Your task to perform on an android device: Open Amazon Image 0: 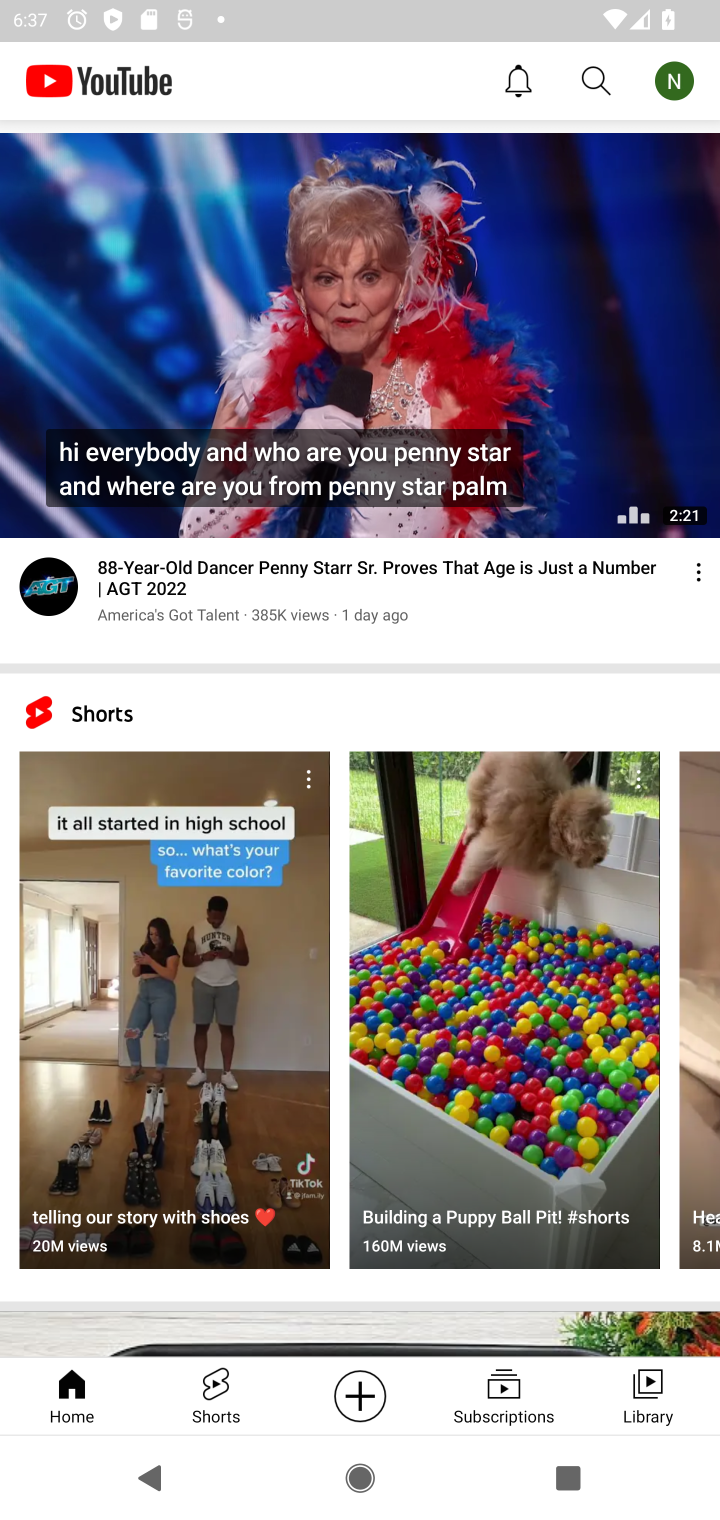
Step 0: press home button
Your task to perform on an android device: Open Amazon Image 1: 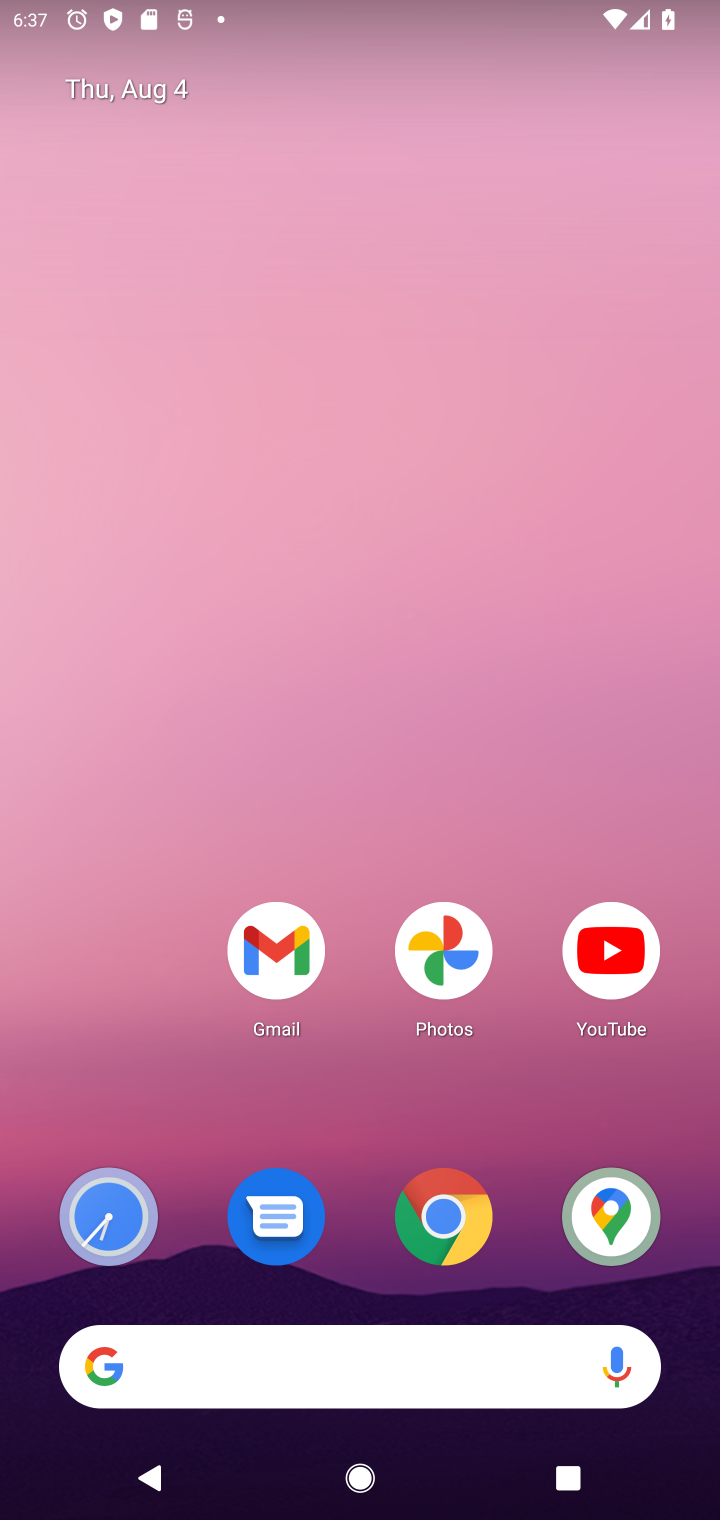
Step 1: drag from (329, 714) to (288, 14)
Your task to perform on an android device: Open Amazon Image 2: 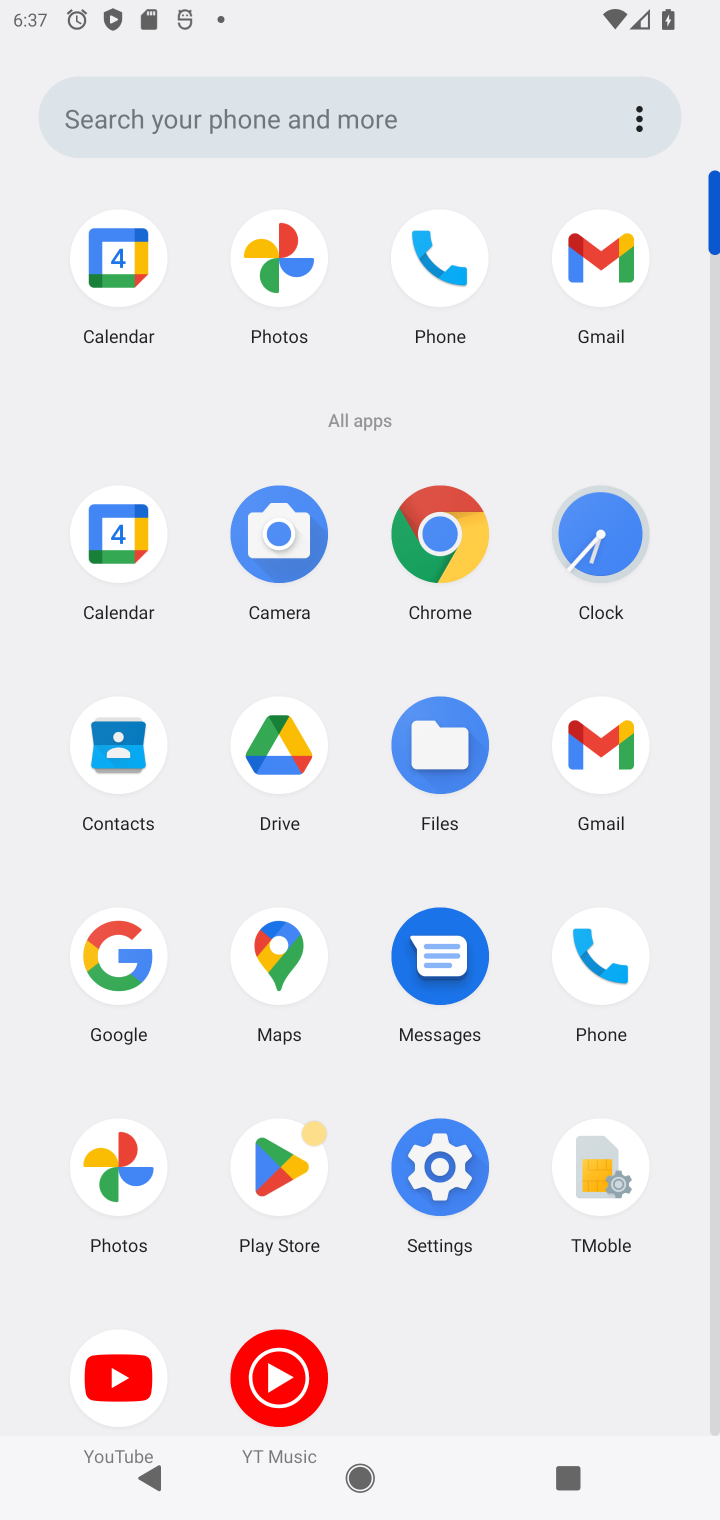
Step 2: click (420, 569)
Your task to perform on an android device: Open Amazon Image 3: 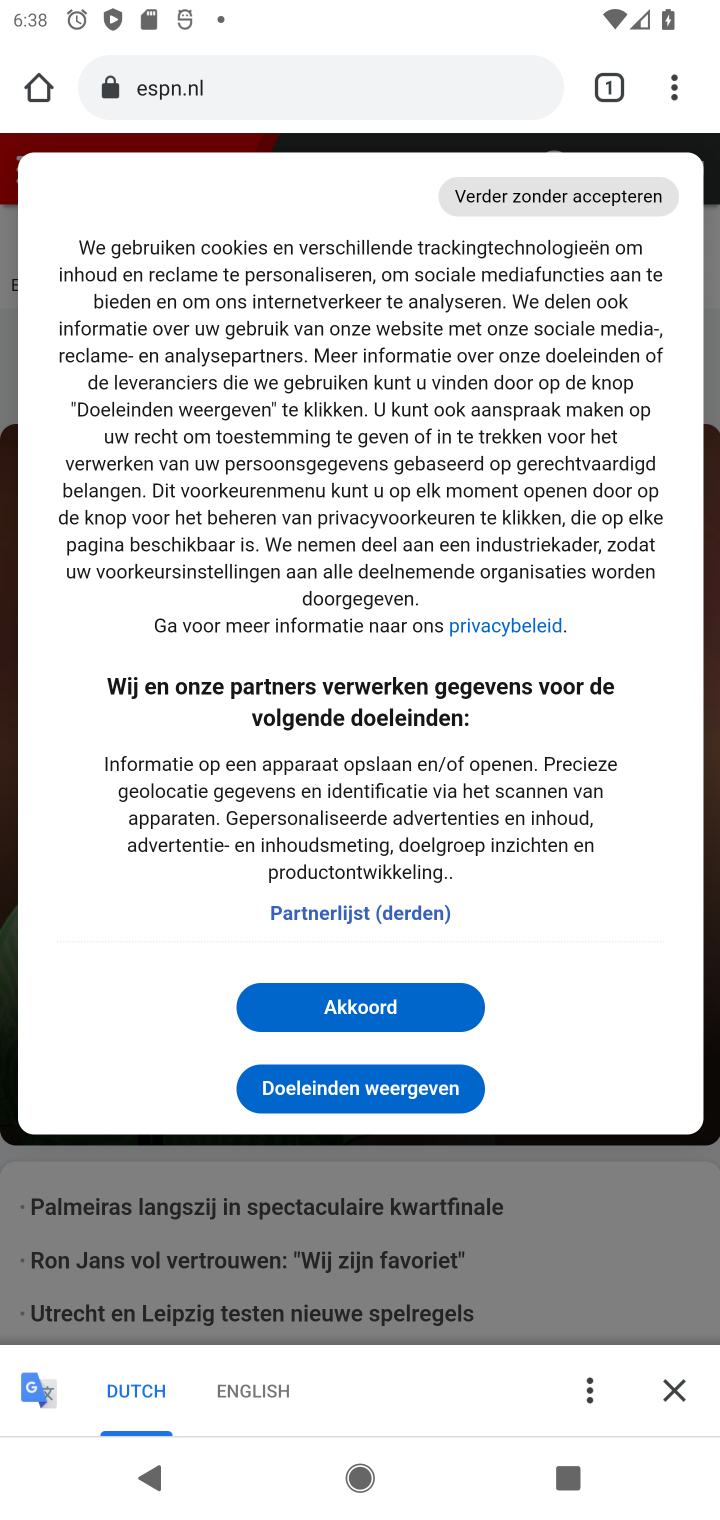
Step 3: click (663, 80)
Your task to perform on an android device: Open Amazon Image 4: 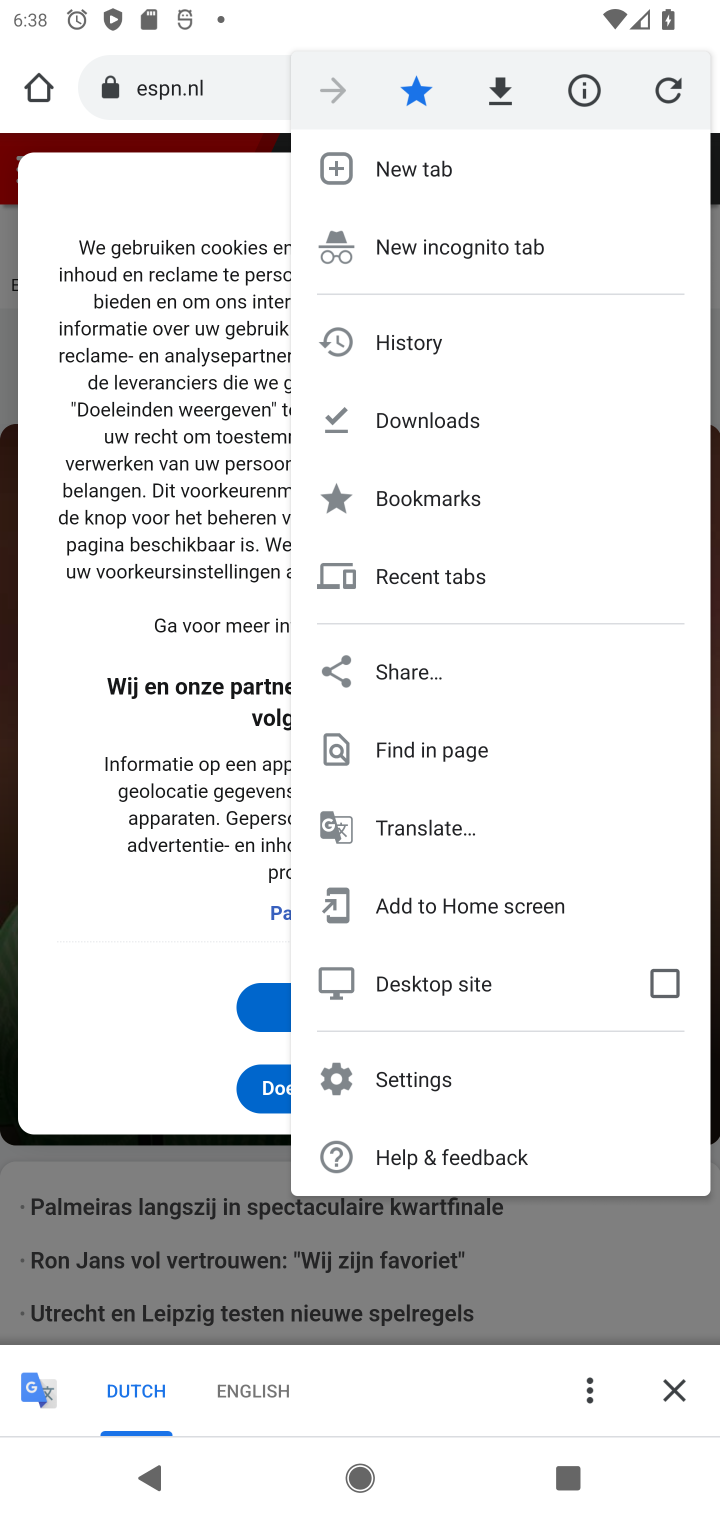
Step 4: click (122, 226)
Your task to perform on an android device: Open Amazon Image 5: 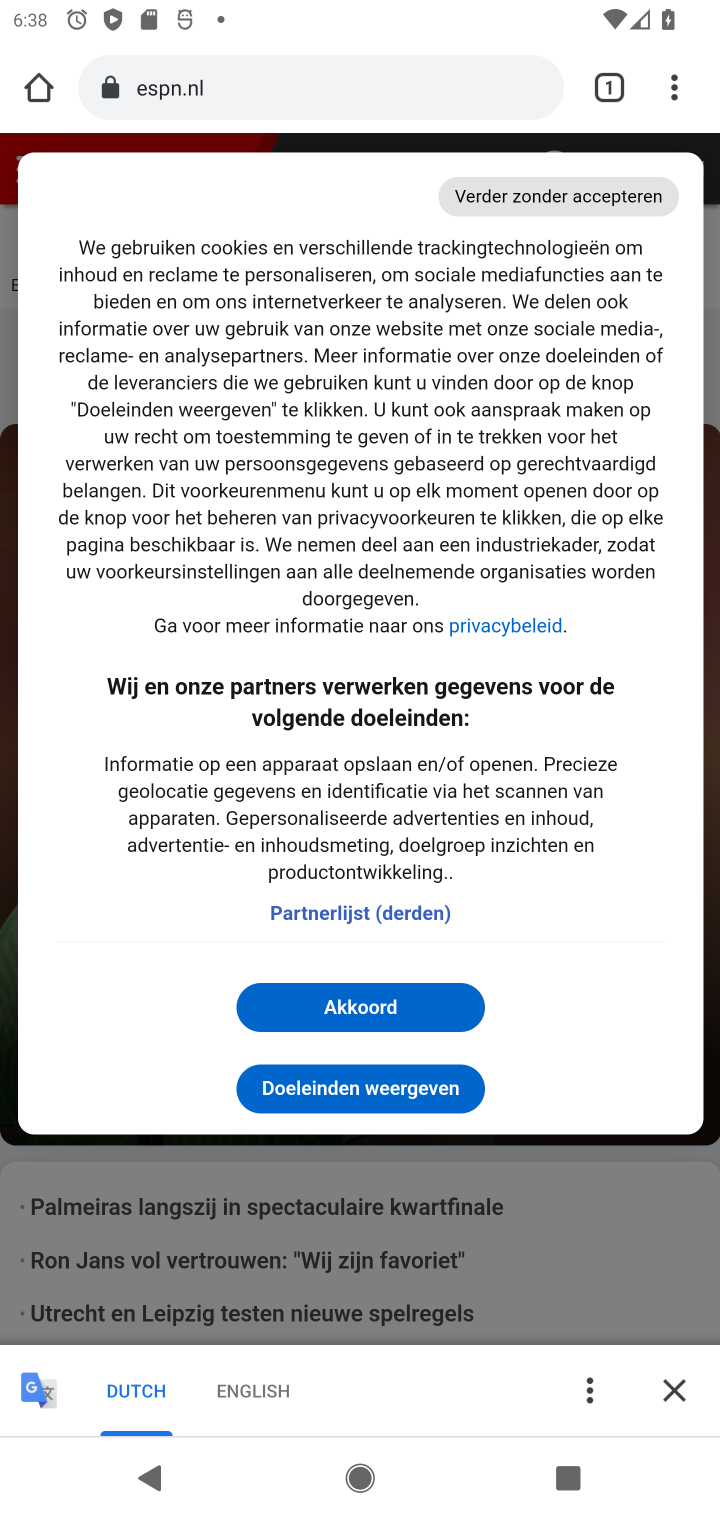
Step 5: click (615, 73)
Your task to perform on an android device: Open Amazon Image 6: 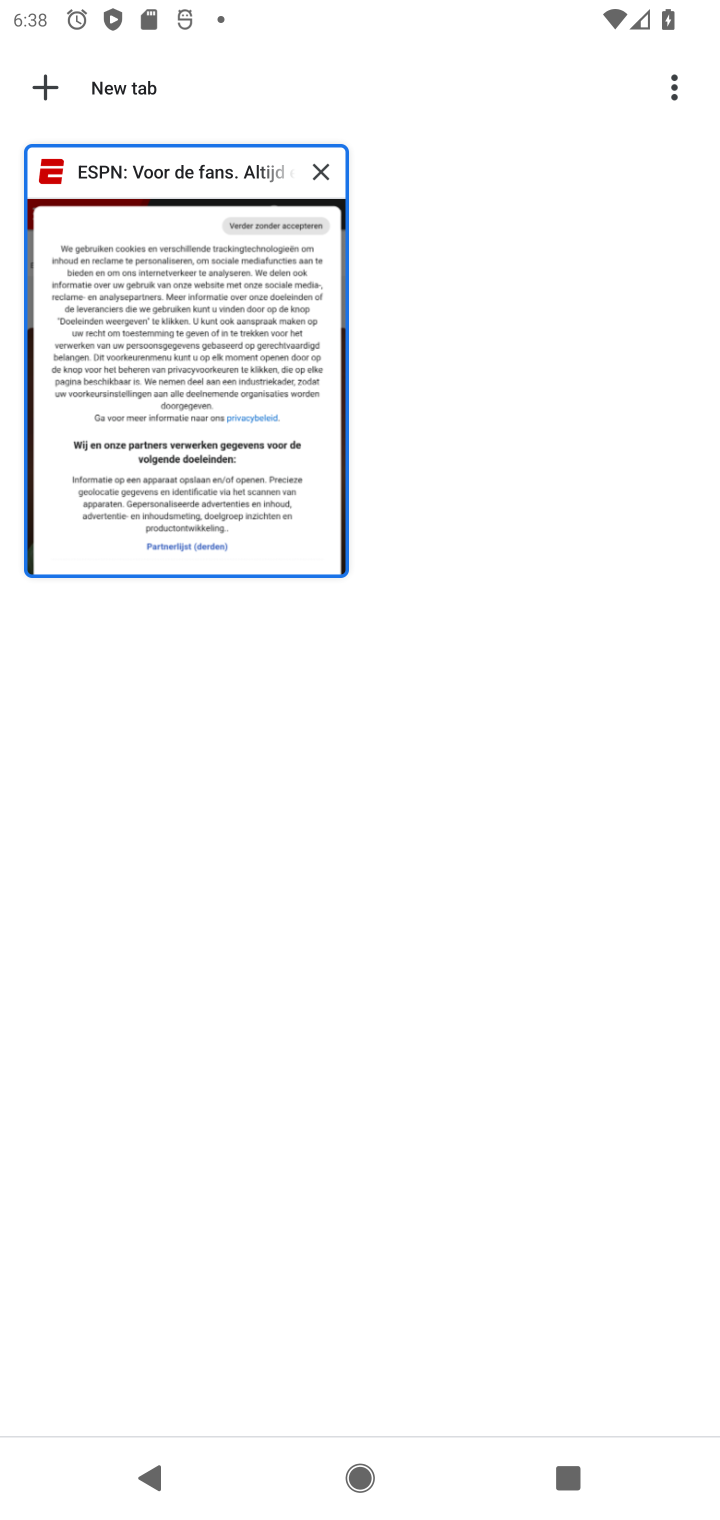
Step 6: click (318, 172)
Your task to perform on an android device: Open Amazon Image 7: 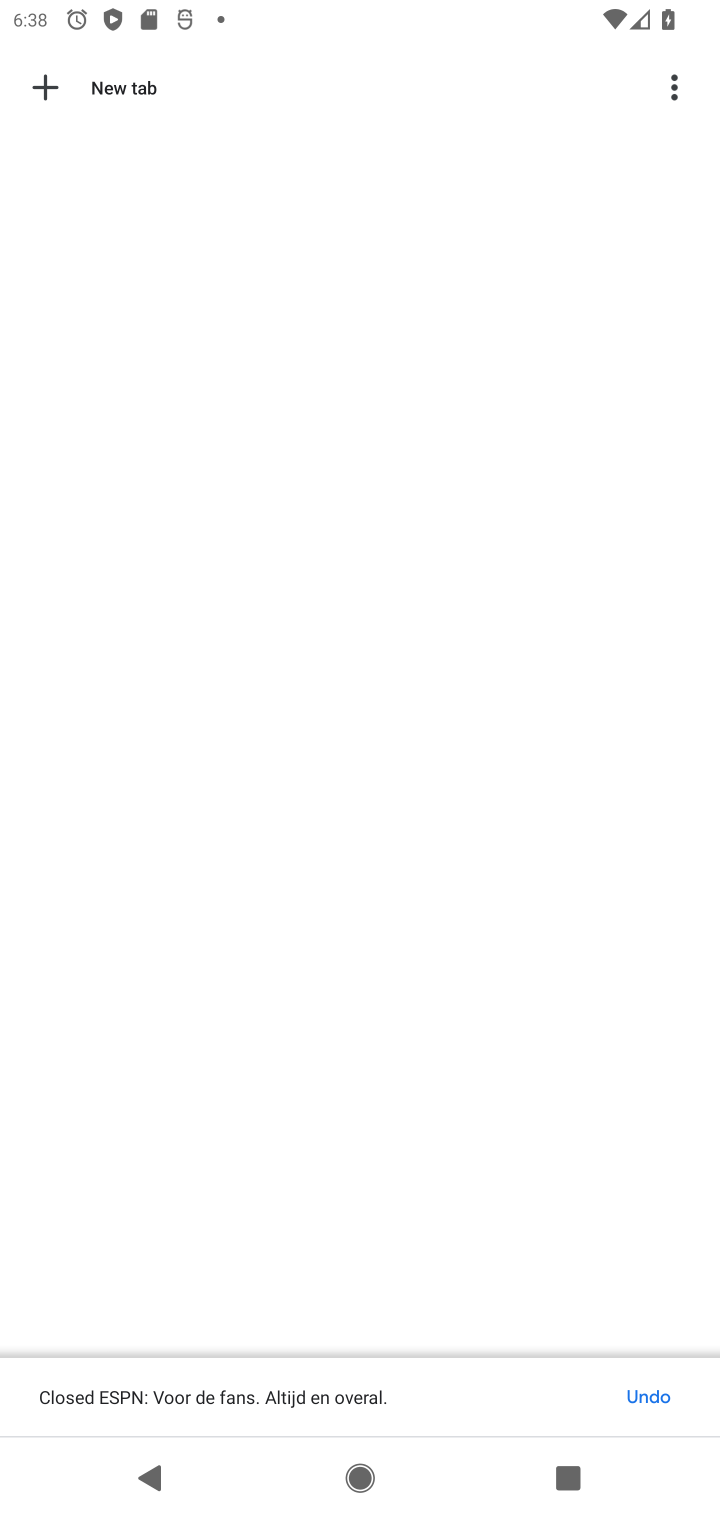
Step 7: click (48, 80)
Your task to perform on an android device: Open Amazon Image 8: 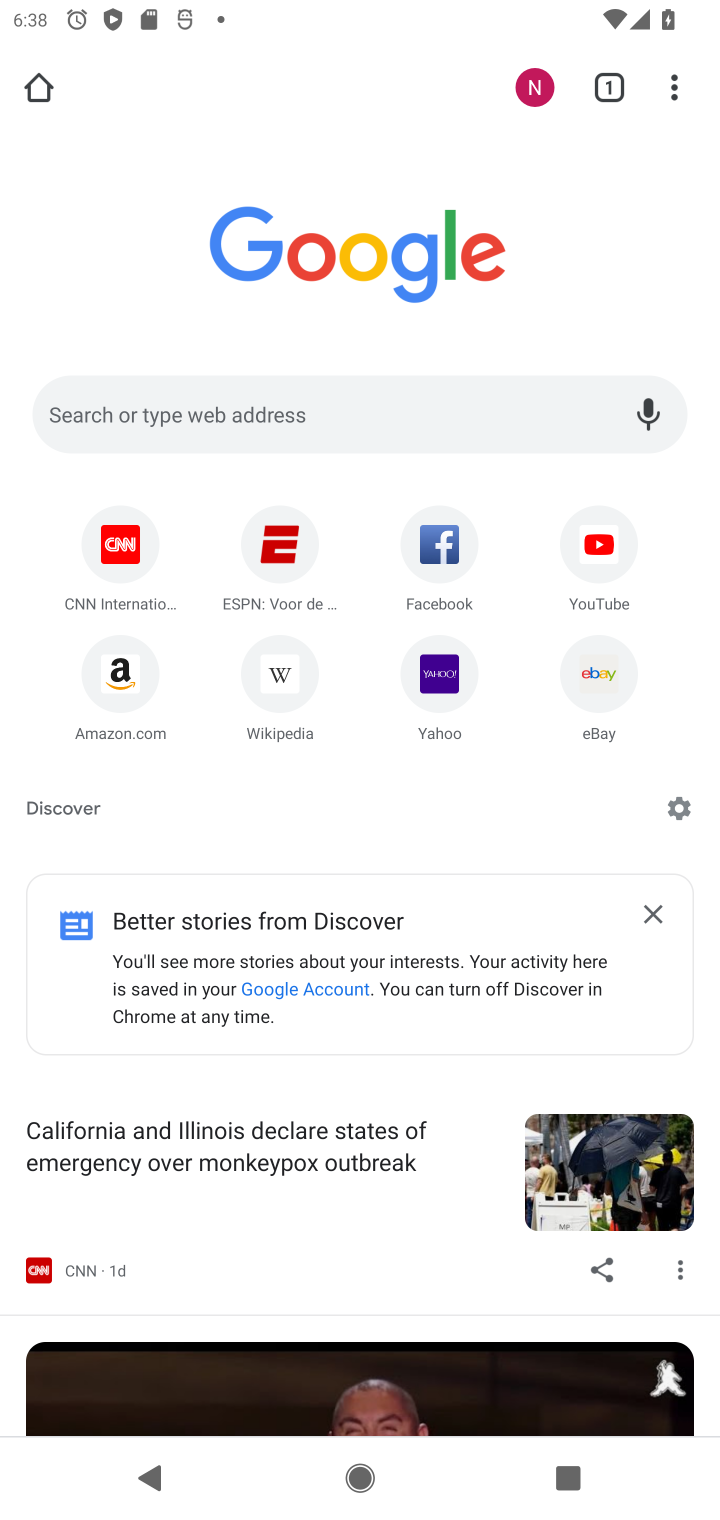
Step 8: click (127, 675)
Your task to perform on an android device: Open Amazon Image 9: 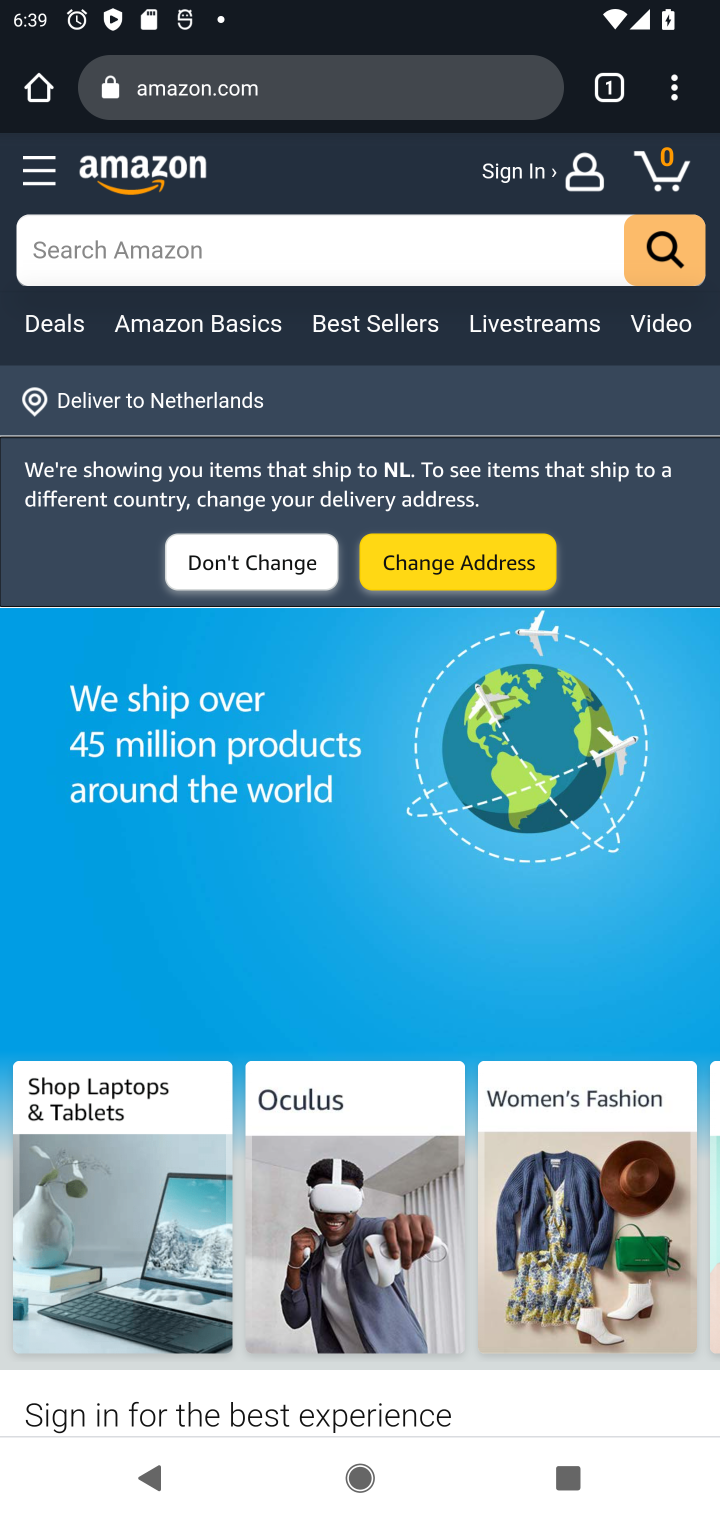
Step 9: task complete